Your task to perform on an android device: Go to wifi settings Image 0: 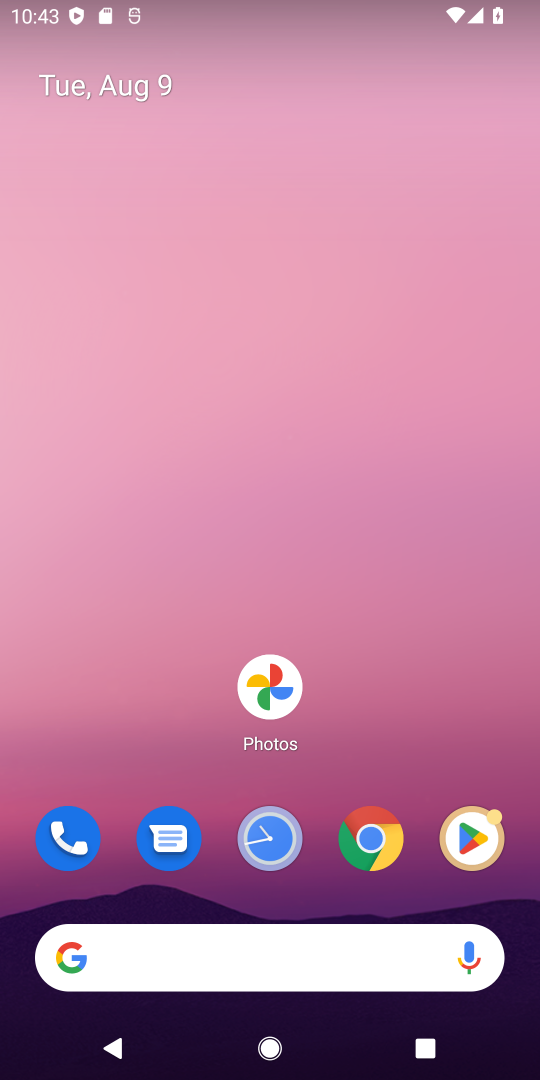
Step 0: press home button
Your task to perform on an android device: Go to wifi settings Image 1: 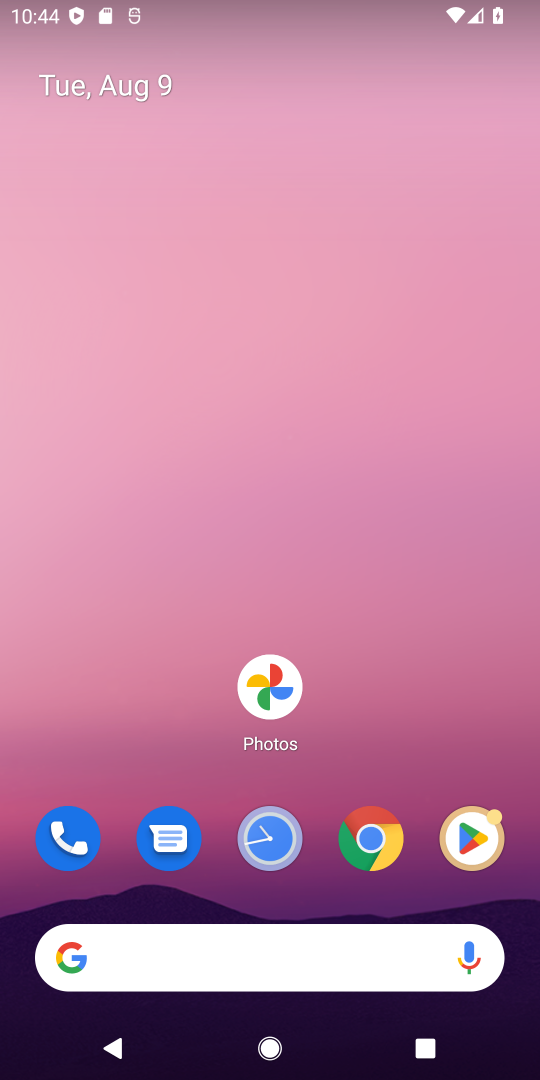
Step 1: drag from (378, 23) to (492, 98)
Your task to perform on an android device: Go to wifi settings Image 2: 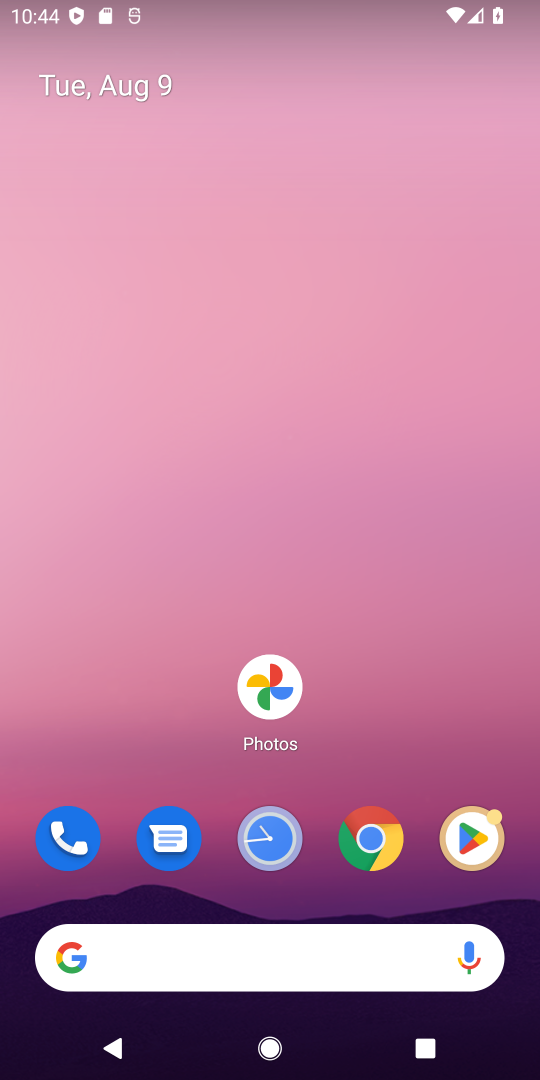
Step 2: drag from (314, 0) to (338, 635)
Your task to perform on an android device: Go to wifi settings Image 3: 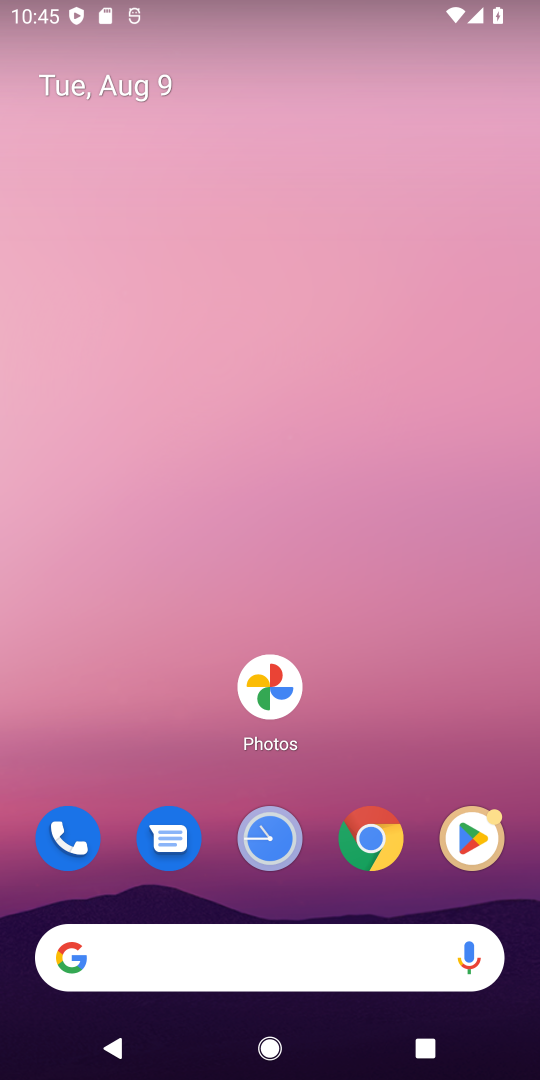
Step 3: drag from (490, 10) to (31, 648)
Your task to perform on an android device: Go to wifi settings Image 4: 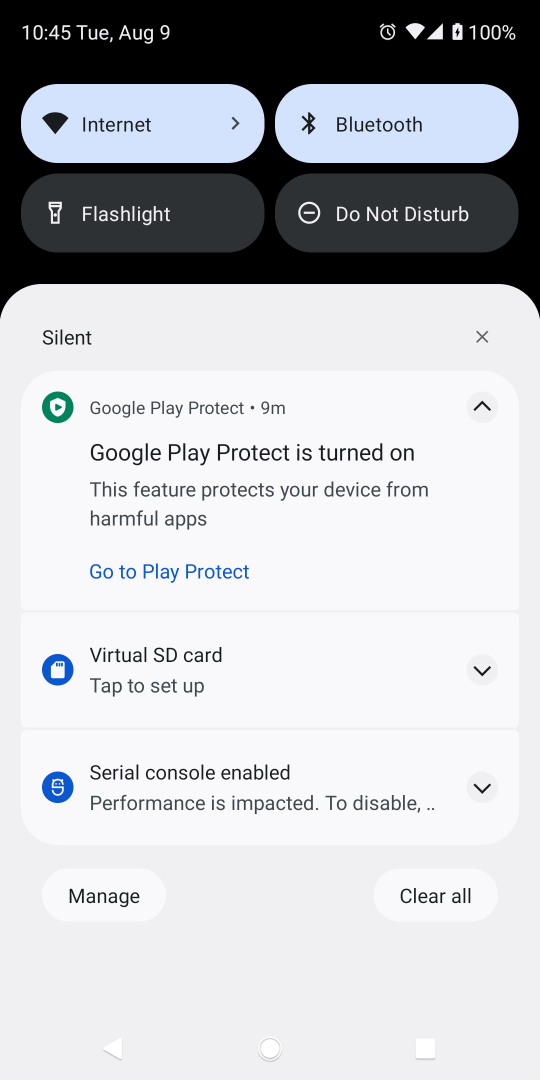
Step 4: drag from (277, 256) to (264, 887)
Your task to perform on an android device: Go to wifi settings Image 5: 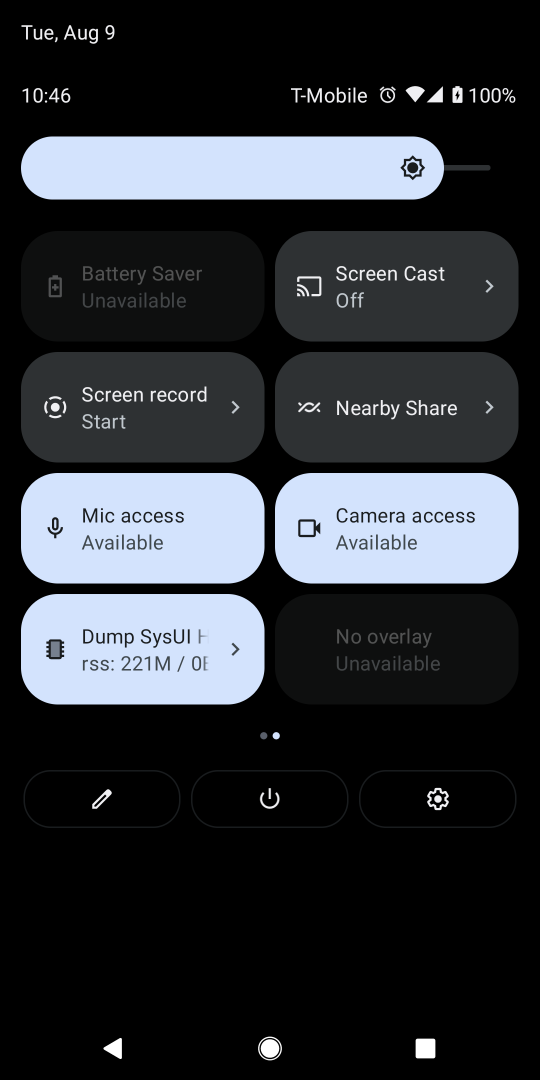
Step 5: drag from (17, 588) to (325, 508)
Your task to perform on an android device: Go to wifi settings Image 6: 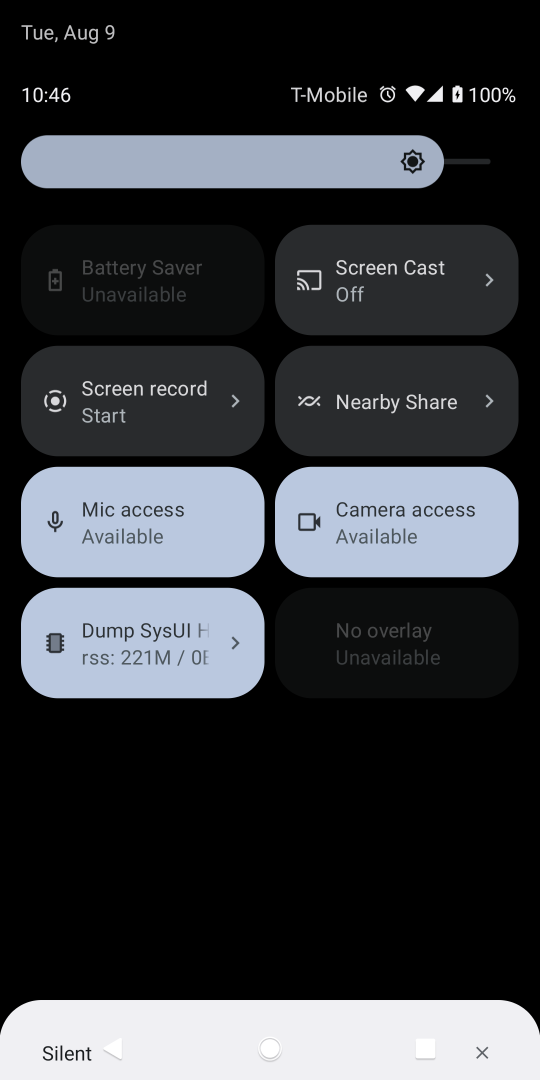
Step 6: press home button
Your task to perform on an android device: Go to wifi settings Image 7: 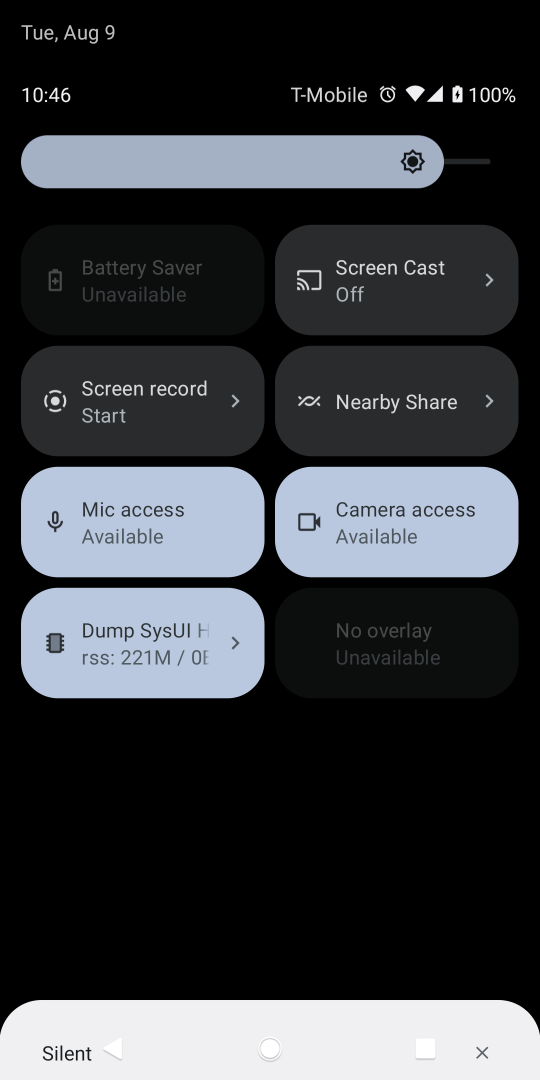
Step 7: drag from (325, 508) to (528, 413)
Your task to perform on an android device: Go to wifi settings Image 8: 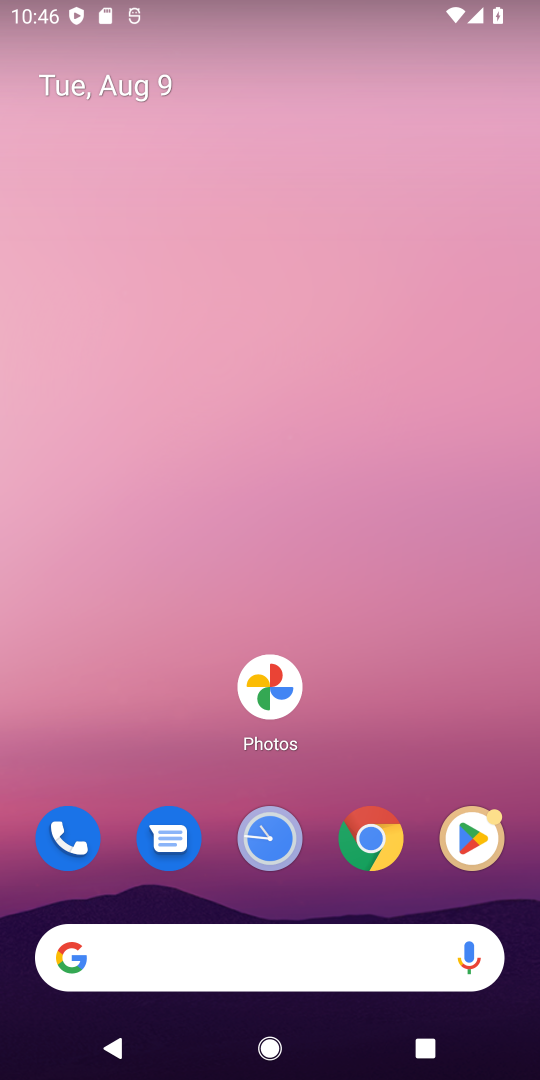
Step 8: drag from (445, 60) to (10, 995)
Your task to perform on an android device: Go to wifi settings Image 9: 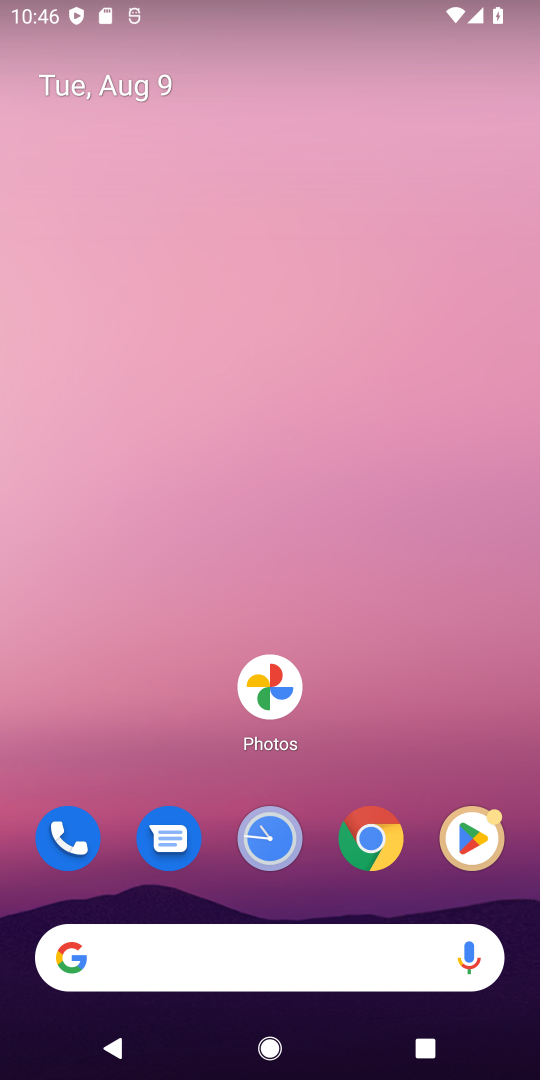
Step 9: drag from (492, 0) to (79, 857)
Your task to perform on an android device: Go to wifi settings Image 10: 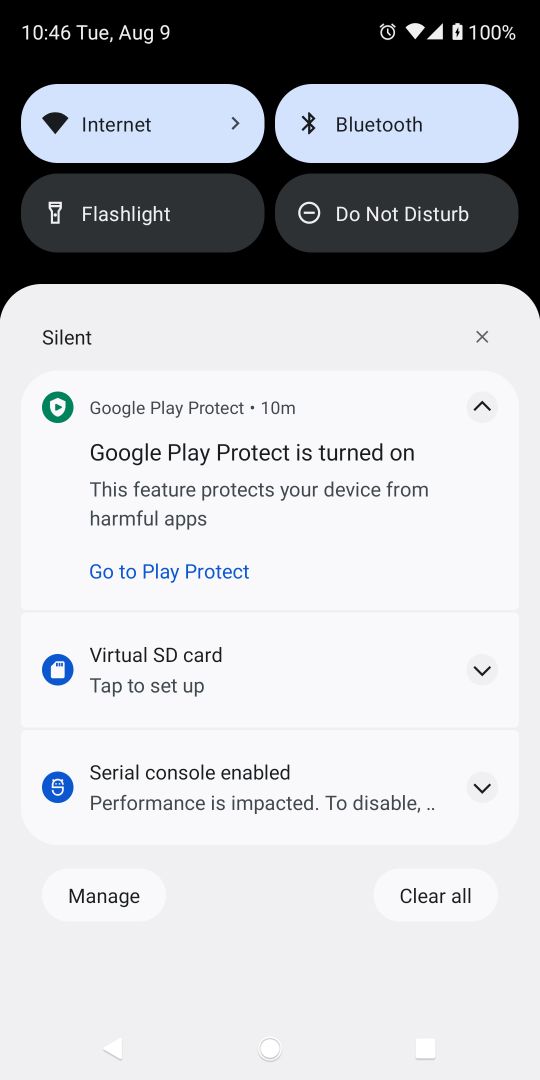
Step 10: click (168, 139)
Your task to perform on an android device: Go to wifi settings Image 11: 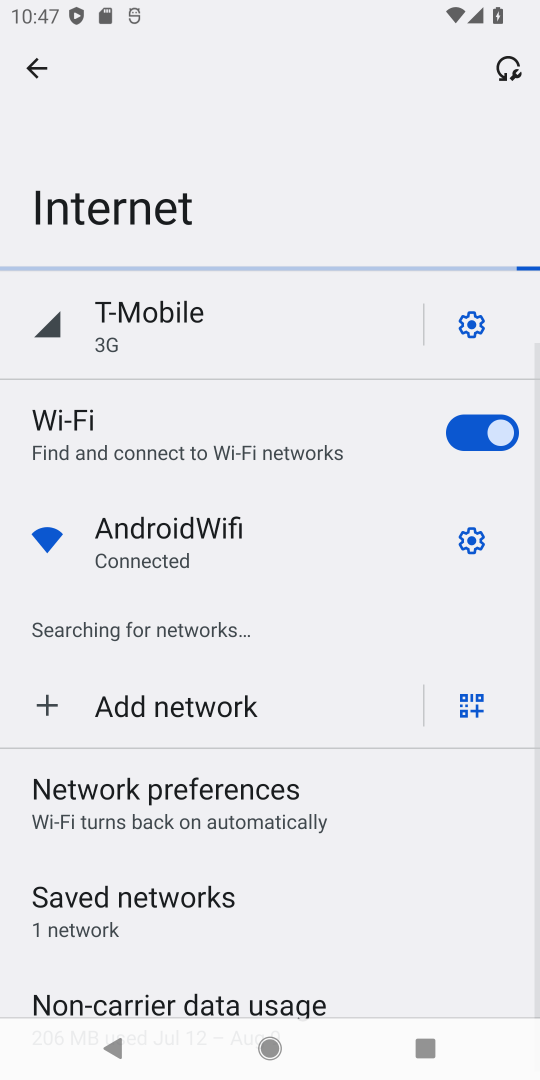
Step 11: task complete